Your task to perform on an android device: Turn on the flashlight Image 0: 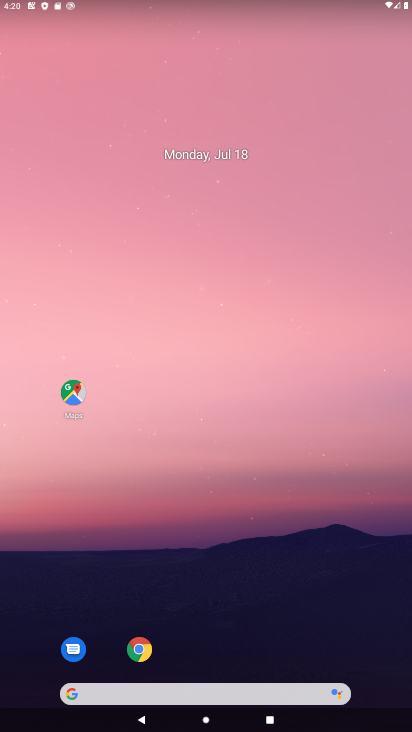
Step 0: drag from (228, 547) to (237, 86)
Your task to perform on an android device: Turn on the flashlight Image 1: 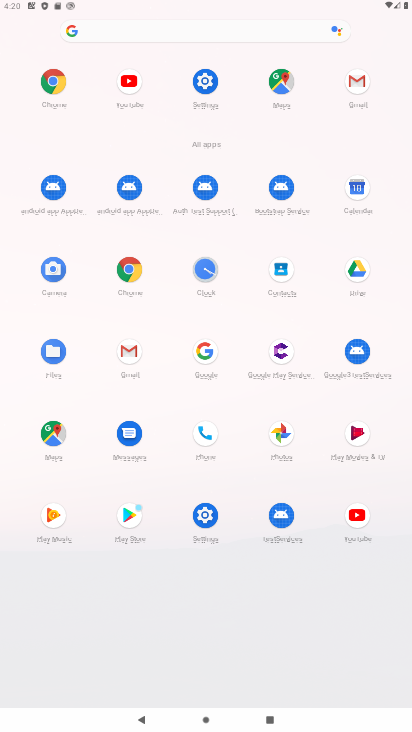
Step 1: click (199, 522)
Your task to perform on an android device: Turn on the flashlight Image 2: 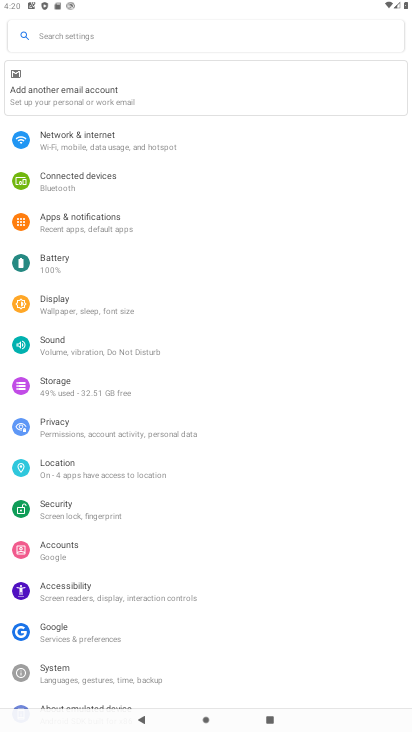
Step 2: task complete